Your task to perform on an android device: Check the weather Image 0: 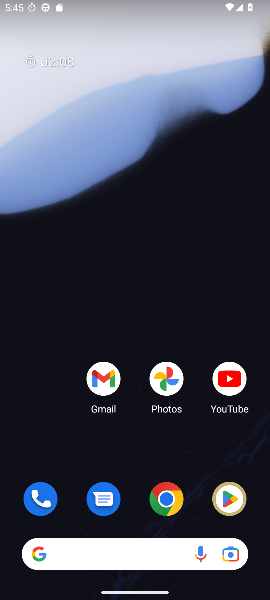
Step 0: press home button
Your task to perform on an android device: Check the weather Image 1: 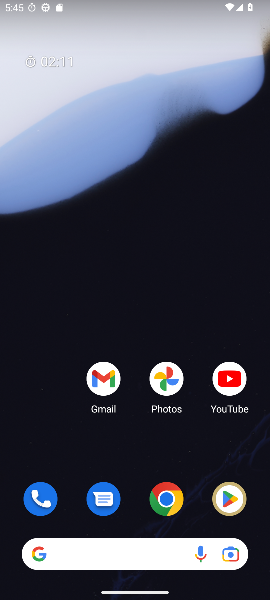
Step 1: drag from (118, 479) to (52, 58)
Your task to perform on an android device: Check the weather Image 2: 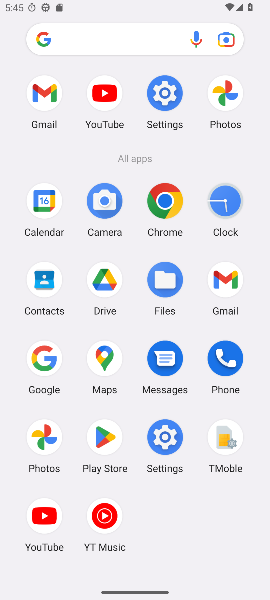
Step 2: click (58, 356)
Your task to perform on an android device: Check the weather Image 3: 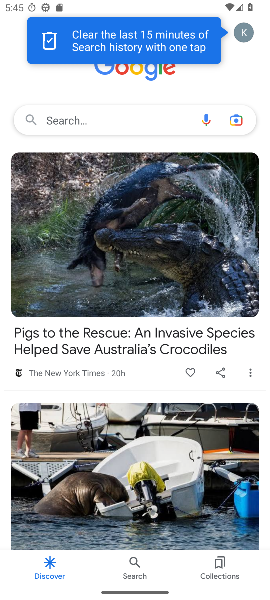
Step 3: click (75, 114)
Your task to perform on an android device: Check the weather Image 4: 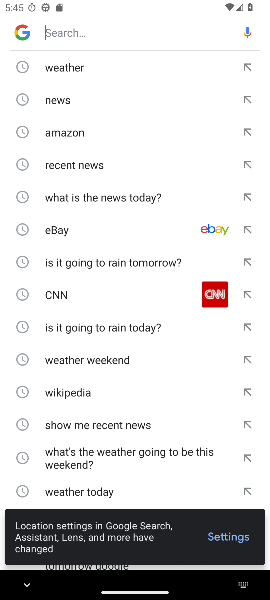
Step 4: click (47, 71)
Your task to perform on an android device: Check the weather Image 5: 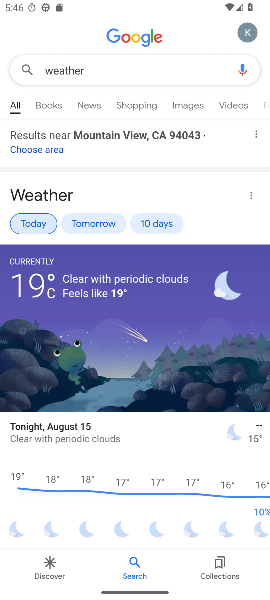
Step 5: task complete